Your task to perform on an android device: open app "Google Docs" (install if not already installed) Image 0: 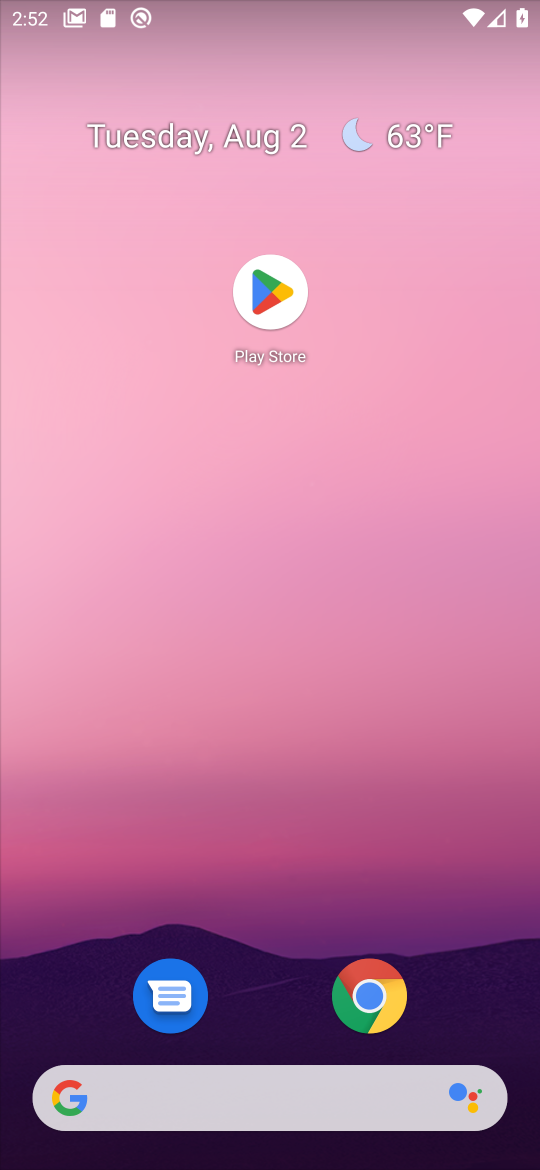
Step 0: click (280, 292)
Your task to perform on an android device: open app "Google Docs" (install if not already installed) Image 1: 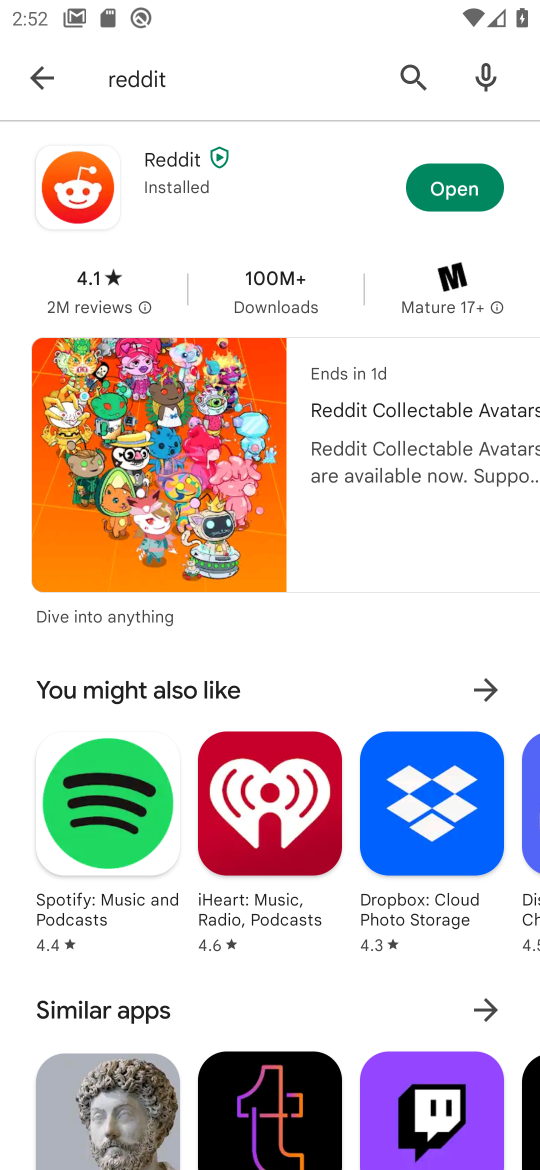
Step 1: click (346, 64)
Your task to perform on an android device: open app "Google Docs" (install if not already installed) Image 2: 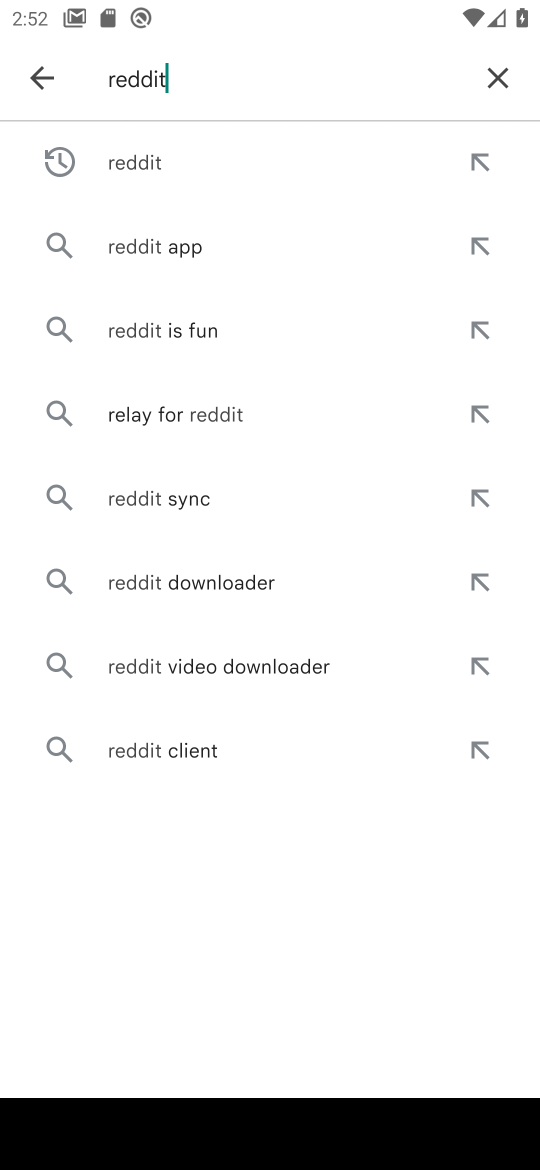
Step 2: click (483, 65)
Your task to perform on an android device: open app "Google Docs" (install if not already installed) Image 3: 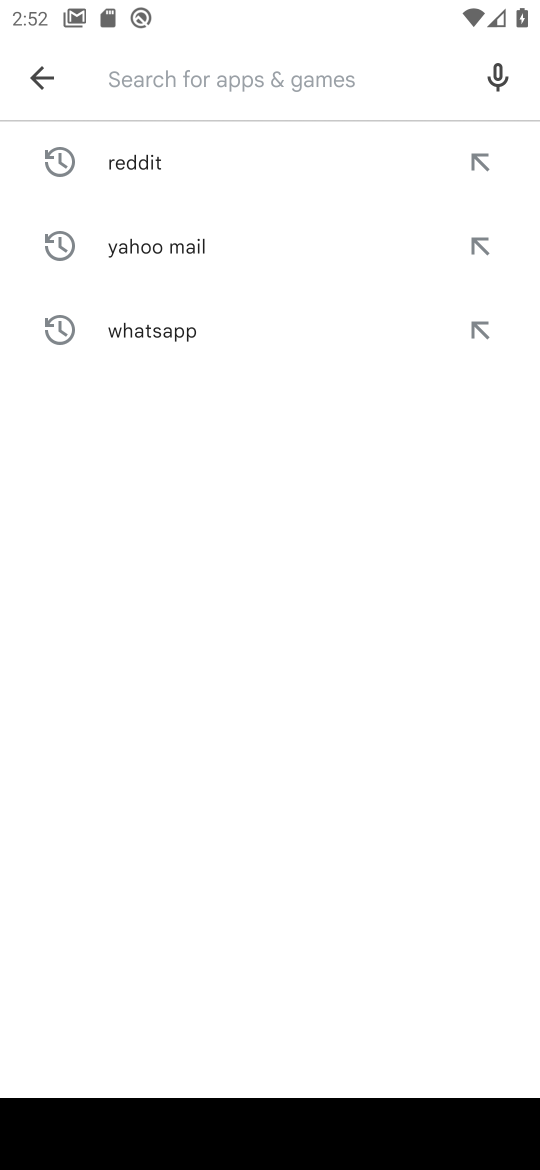
Step 3: type "google docs"
Your task to perform on an android device: open app "Google Docs" (install if not already installed) Image 4: 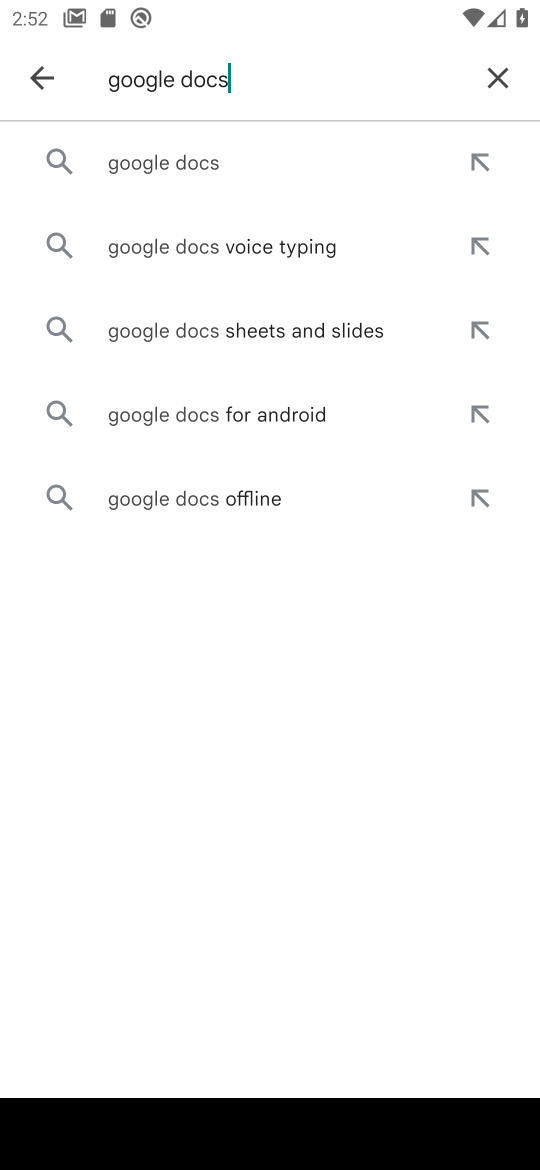
Step 4: click (208, 169)
Your task to perform on an android device: open app "Google Docs" (install if not already installed) Image 5: 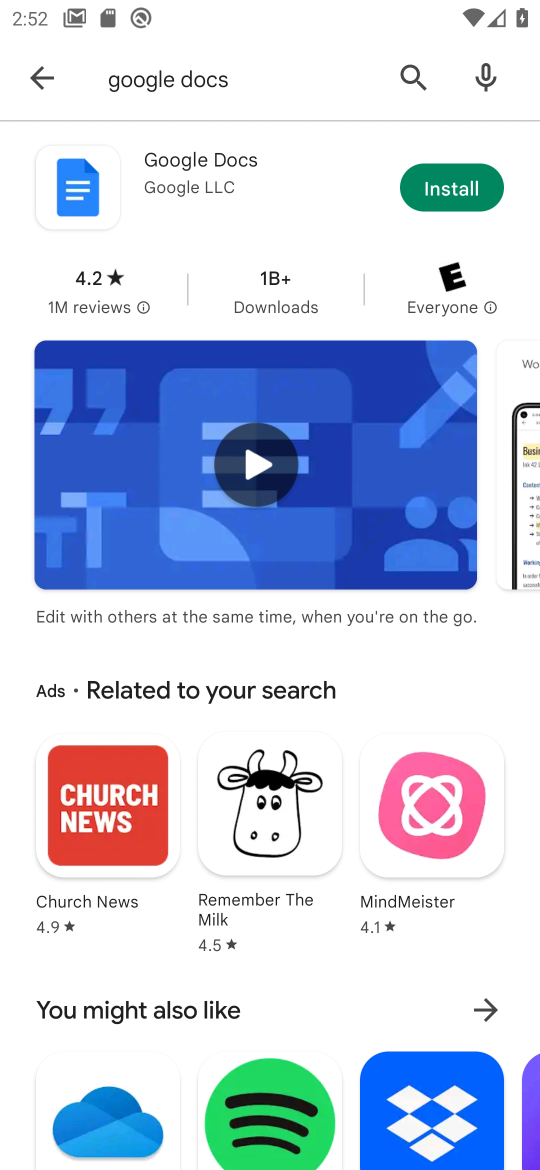
Step 5: click (466, 183)
Your task to perform on an android device: open app "Google Docs" (install if not already installed) Image 6: 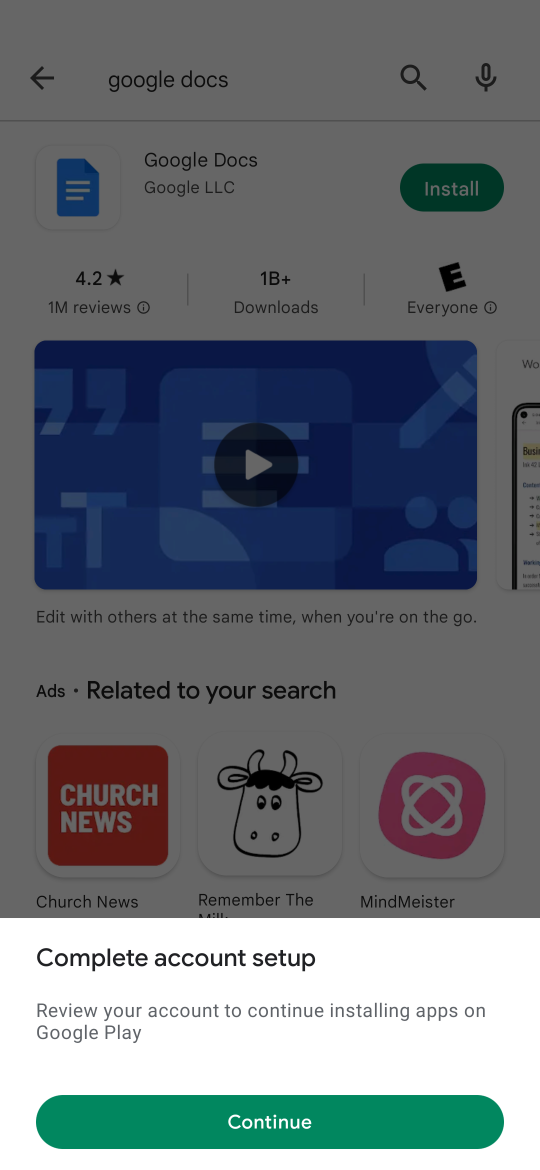
Step 6: click (236, 1143)
Your task to perform on an android device: open app "Google Docs" (install if not already installed) Image 7: 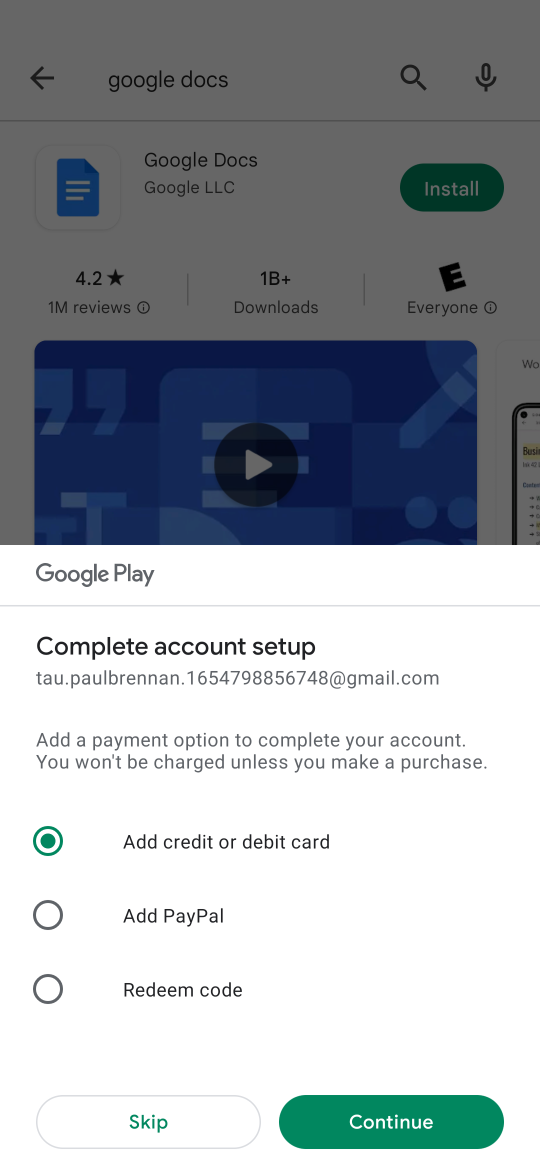
Step 7: click (166, 1104)
Your task to perform on an android device: open app "Google Docs" (install if not already installed) Image 8: 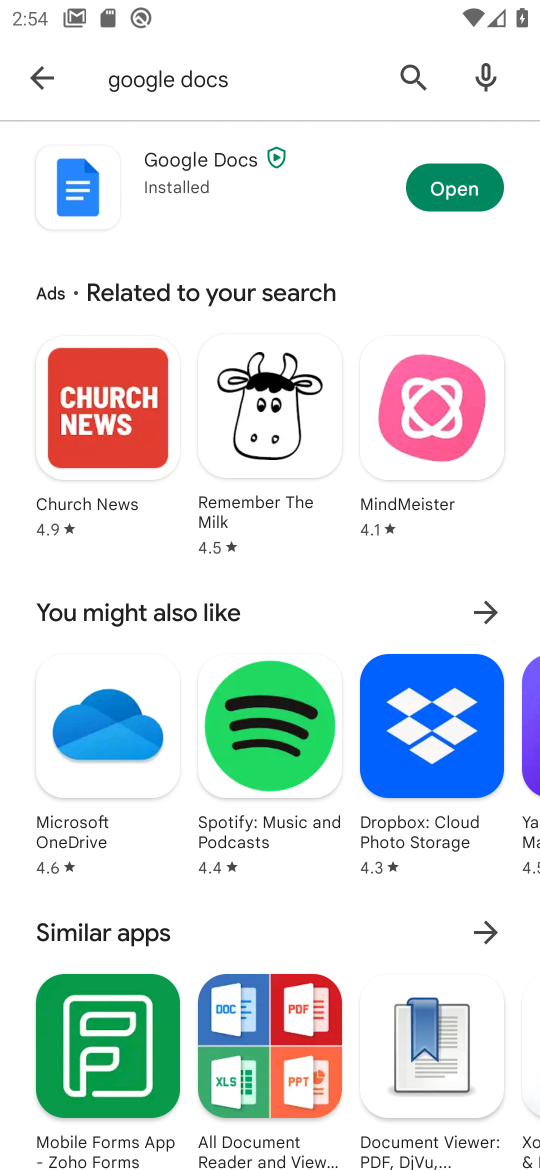
Step 8: task complete